Your task to perform on an android device: Go to privacy settings Image 0: 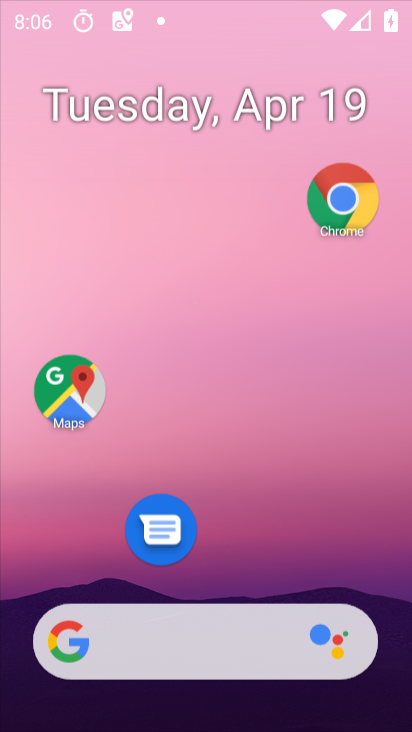
Step 0: click (315, 379)
Your task to perform on an android device: Go to privacy settings Image 1: 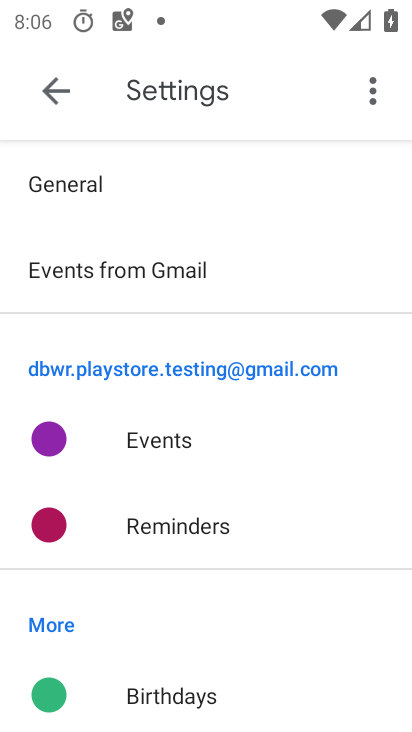
Step 1: drag from (235, 585) to (318, 176)
Your task to perform on an android device: Go to privacy settings Image 2: 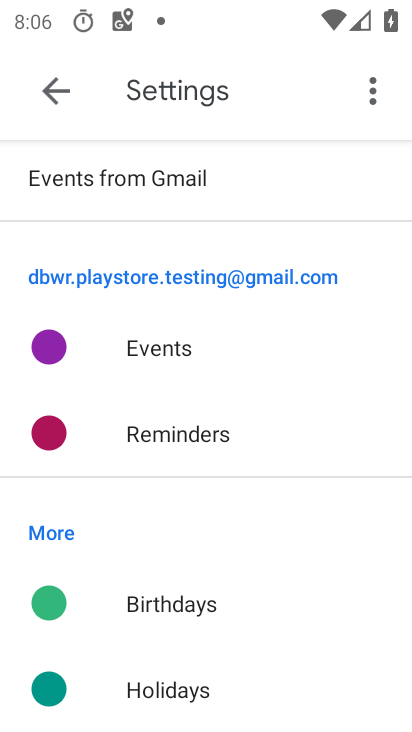
Step 2: drag from (200, 509) to (261, 276)
Your task to perform on an android device: Go to privacy settings Image 3: 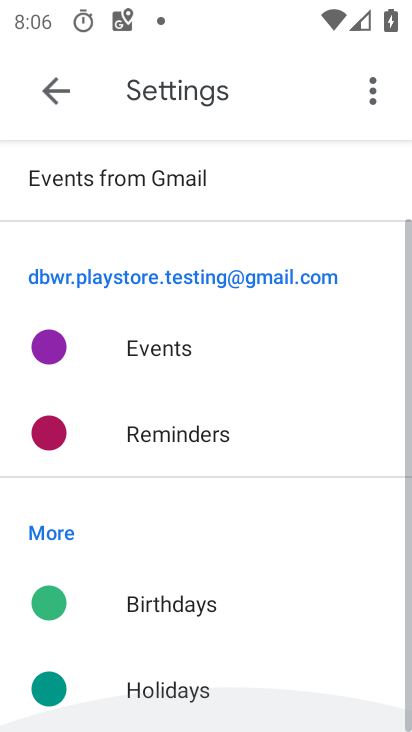
Step 3: drag from (265, 262) to (342, 730)
Your task to perform on an android device: Go to privacy settings Image 4: 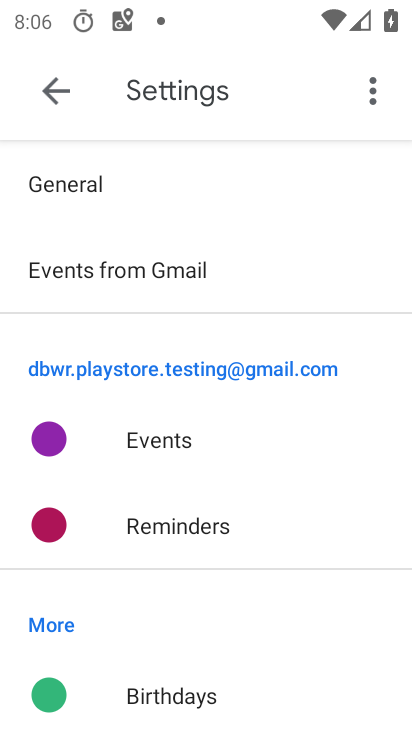
Step 4: press home button
Your task to perform on an android device: Go to privacy settings Image 5: 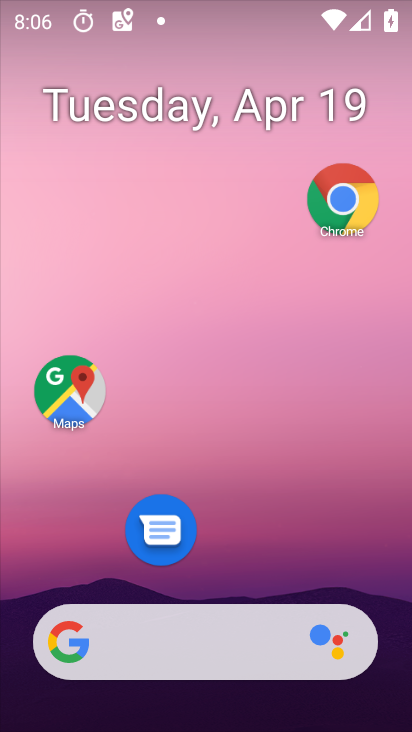
Step 5: drag from (229, 538) to (364, 78)
Your task to perform on an android device: Go to privacy settings Image 6: 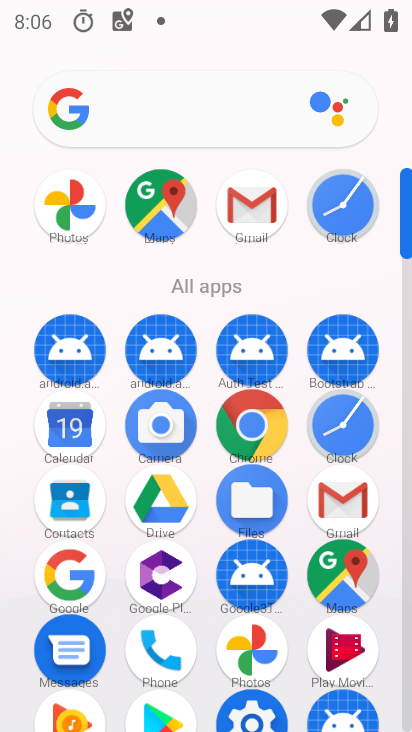
Step 6: click (250, 705)
Your task to perform on an android device: Go to privacy settings Image 7: 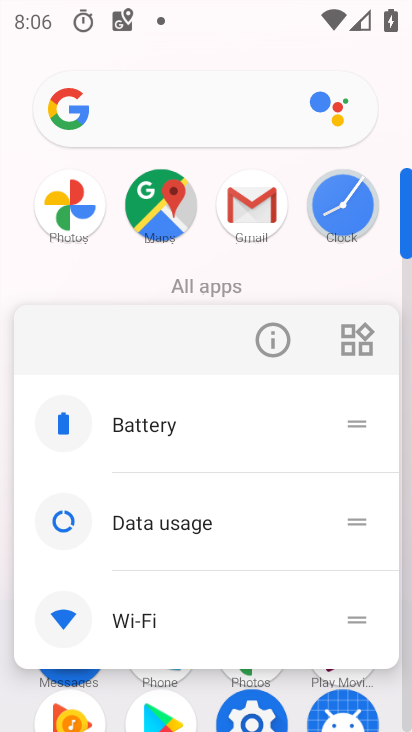
Step 7: click (264, 332)
Your task to perform on an android device: Go to privacy settings Image 8: 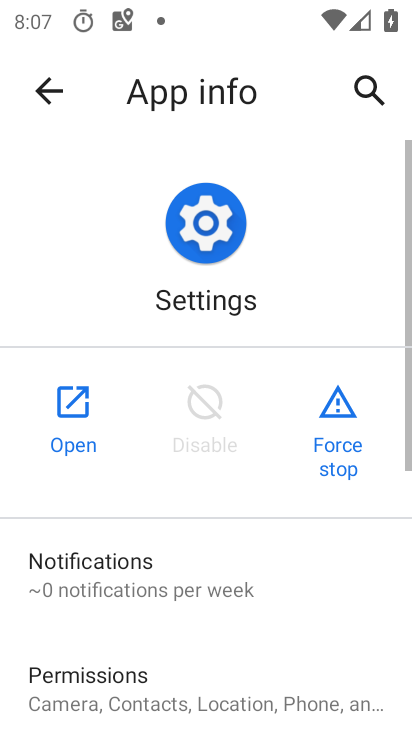
Step 8: click (73, 405)
Your task to perform on an android device: Go to privacy settings Image 9: 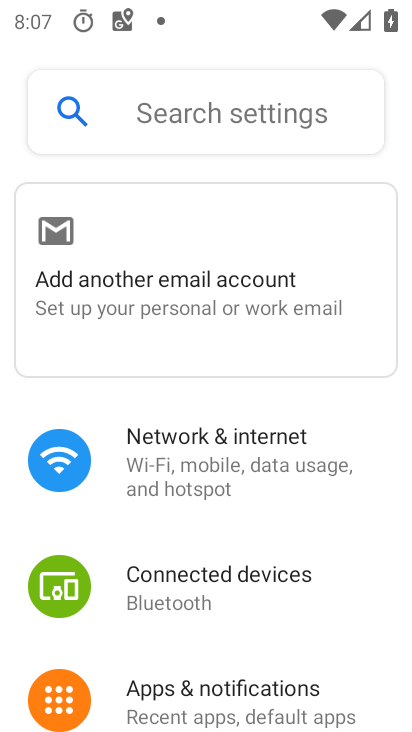
Step 9: drag from (222, 632) to (357, 41)
Your task to perform on an android device: Go to privacy settings Image 10: 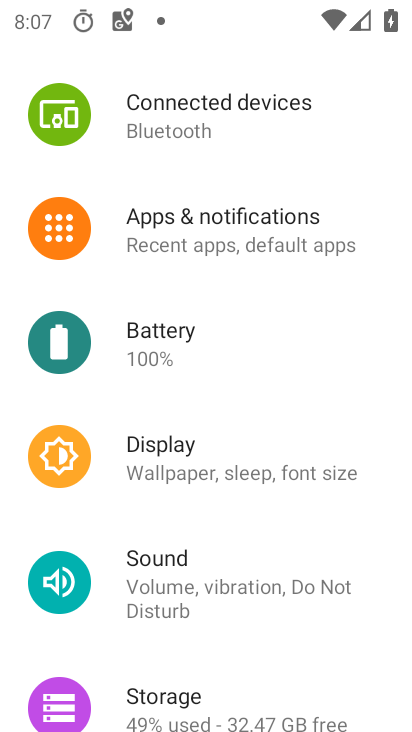
Step 10: drag from (219, 615) to (332, 214)
Your task to perform on an android device: Go to privacy settings Image 11: 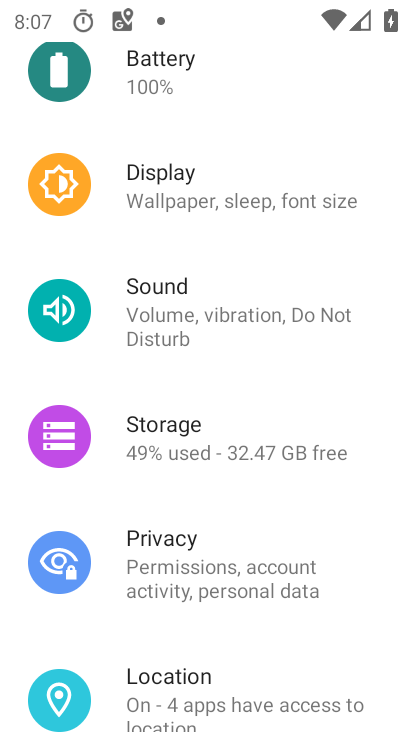
Step 11: click (220, 590)
Your task to perform on an android device: Go to privacy settings Image 12: 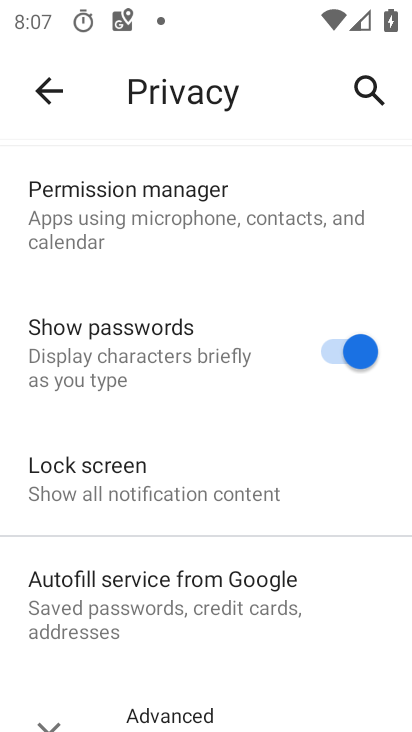
Step 12: task complete